Your task to perform on an android device: empty trash in google photos Image 0: 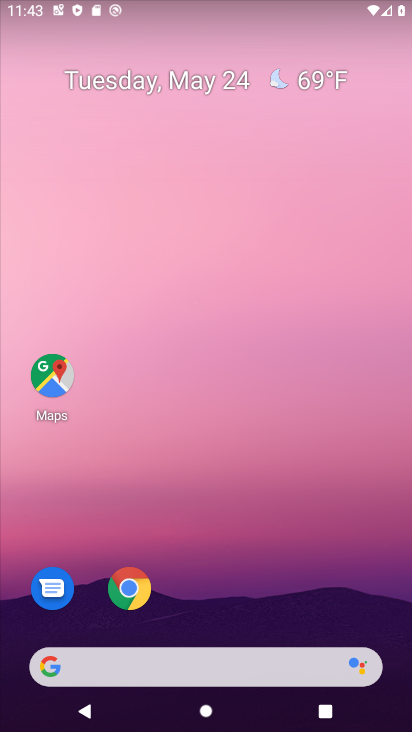
Step 0: drag from (219, 633) to (243, 58)
Your task to perform on an android device: empty trash in google photos Image 1: 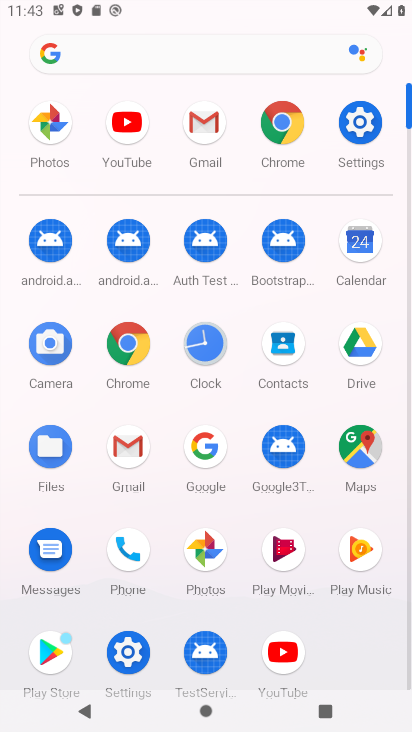
Step 1: click (204, 543)
Your task to perform on an android device: empty trash in google photos Image 2: 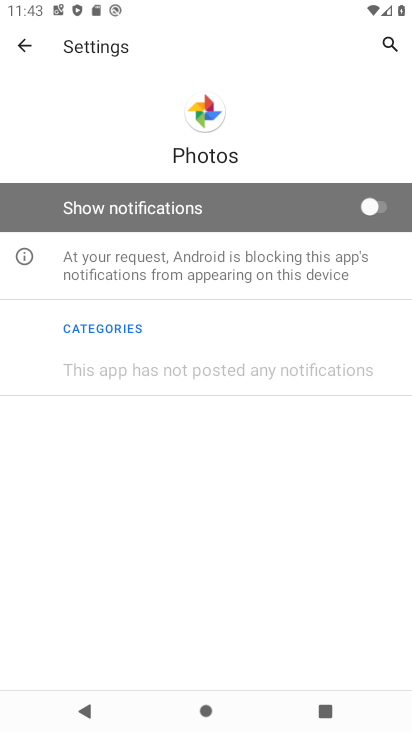
Step 2: click (23, 46)
Your task to perform on an android device: empty trash in google photos Image 3: 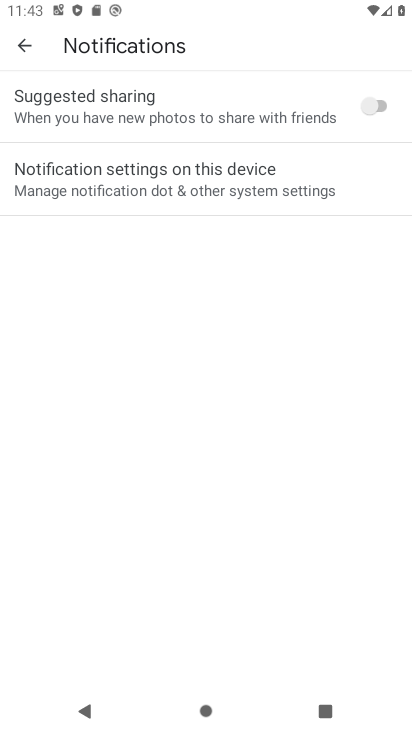
Step 3: click (27, 46)
Your task to perform on an android device: empty trash in google photos Image 4: 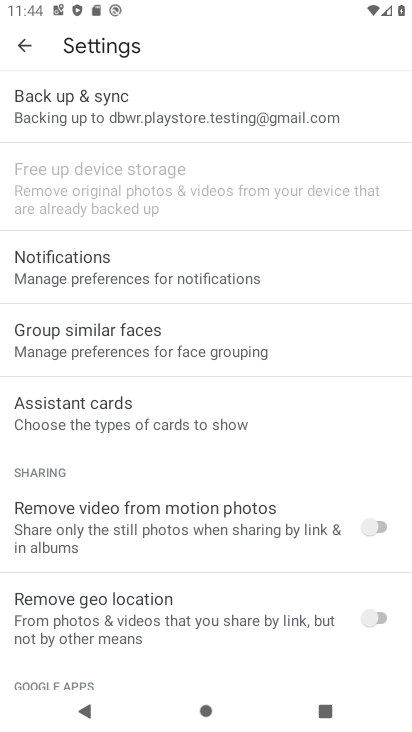
Step 4: click (28, 42)
Your task to perform on an android device: empty trash in google photos Image 5: 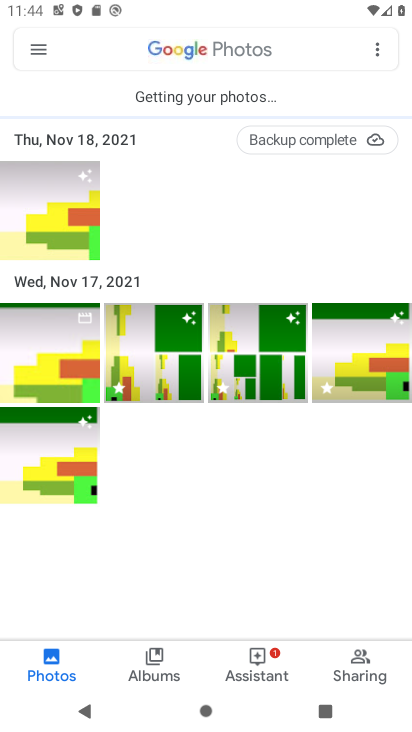
Step 5: click (38, 41)
Your task to perform on an android device: empty trash in google photos Image 6: 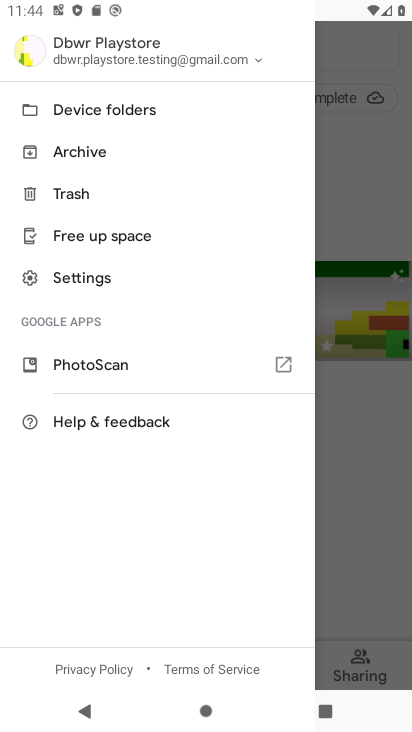
Step 6: click (93, 192)
Your task to perform on an android device: empty trash in google photos Image 7: 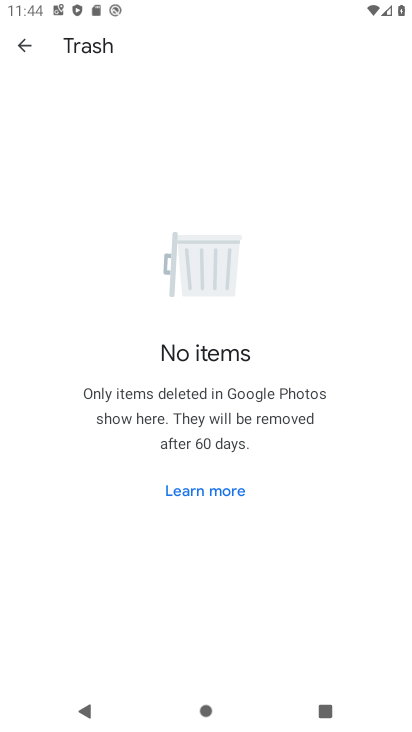
Step 7: task complete